Your task to perform on an android device: What's the weather today? Image 0: 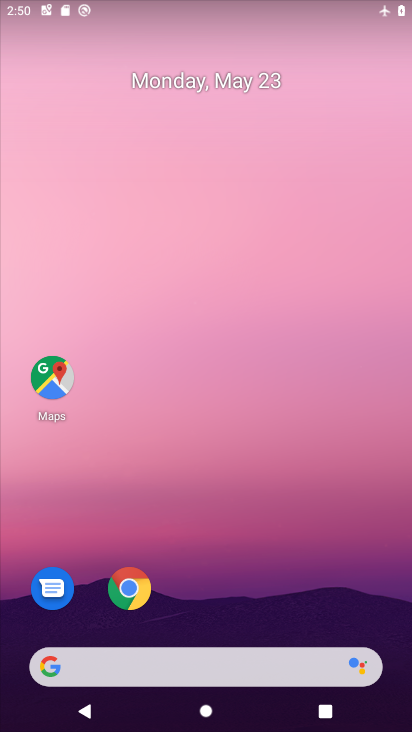
Step 0: drag from (188, 596) to (256, 103)
Your task to perform on an android device: What's the weather today? Image 1: 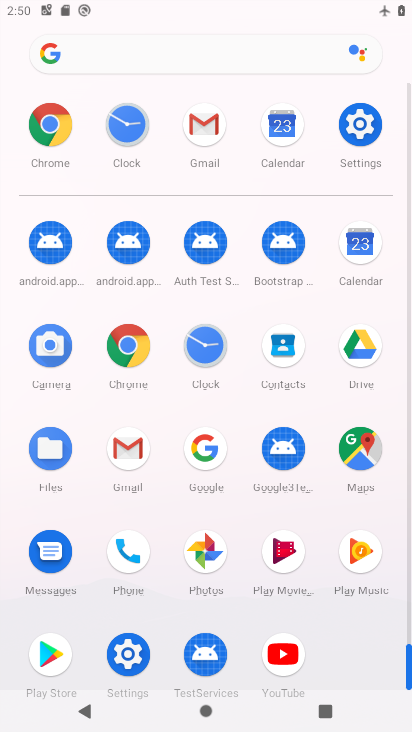
Step 1: click (179, 56)
Your task to perform on an android device: What's the weather today? Image 2: 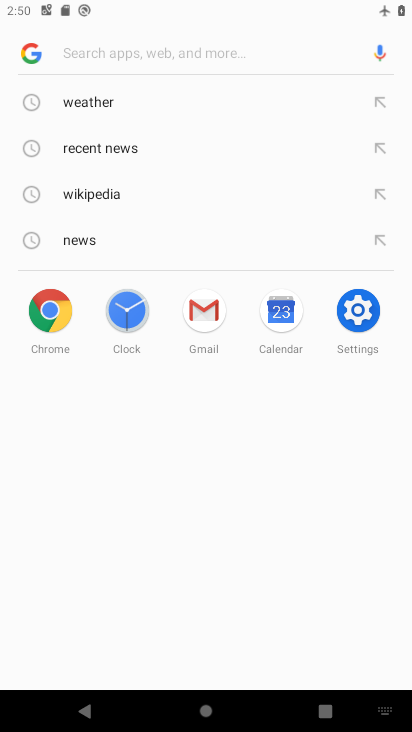
Step 2: type "weather today"
Your task to perform on an android device: What's the weather today? Image 3: 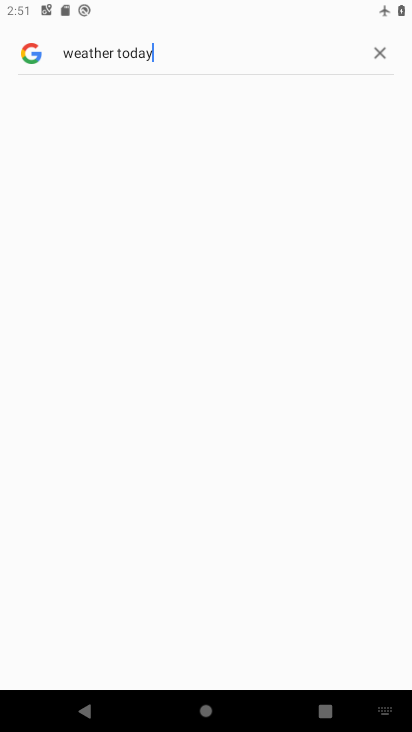
Step 3: click (233, 206)
Your task to perform on an android device: What's the weather today? Image 4: 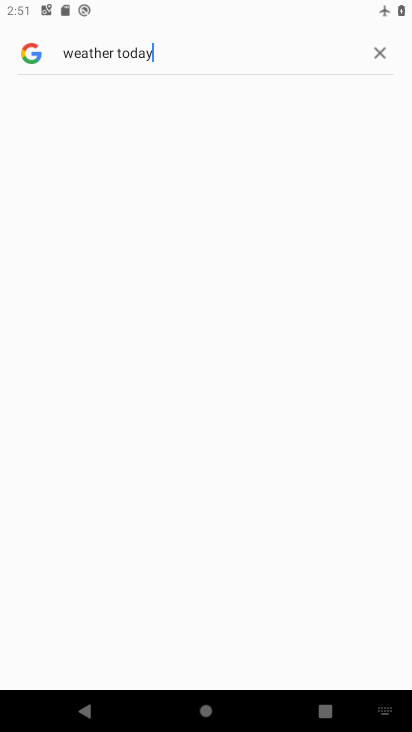
Step 4: task complete